Your task to perform on an android device: Open Wikipedia Image 0: 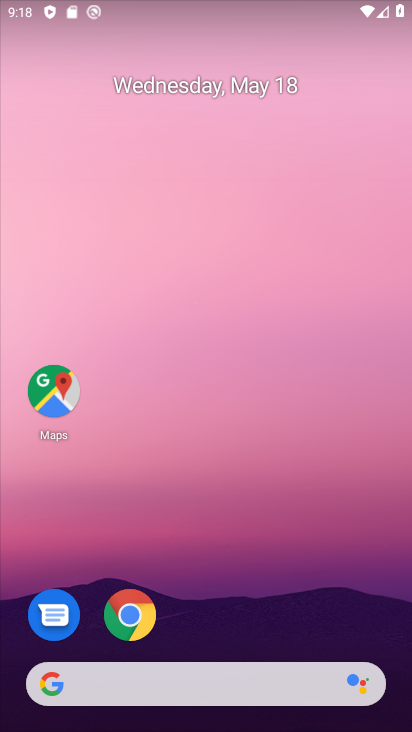
Step 0: click (133, 615)
Your task to perform on an android device: Open Wikipedia Image 1: 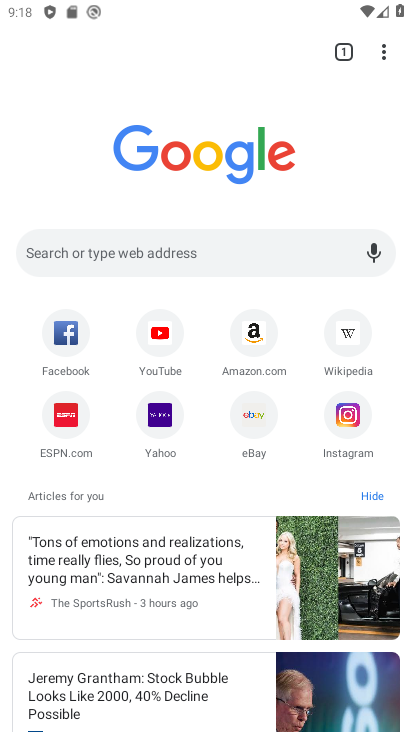
Step 1: click (343, 330)
Your task to perform on an android device: Open Wikipedia Image 2: 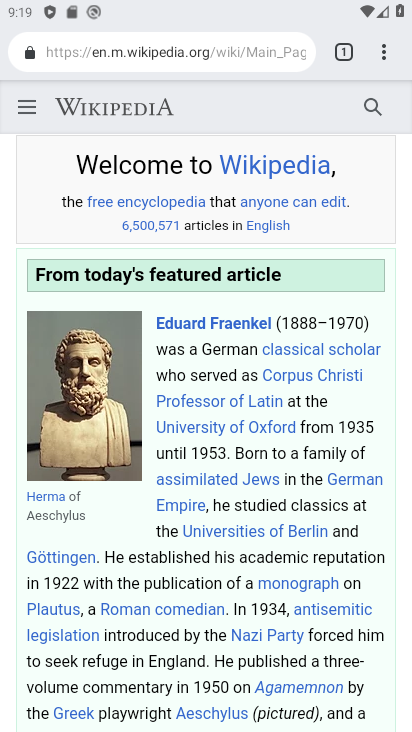
Step 2: task complete